Your task to perform on an android device: What is the news today? Image 0: 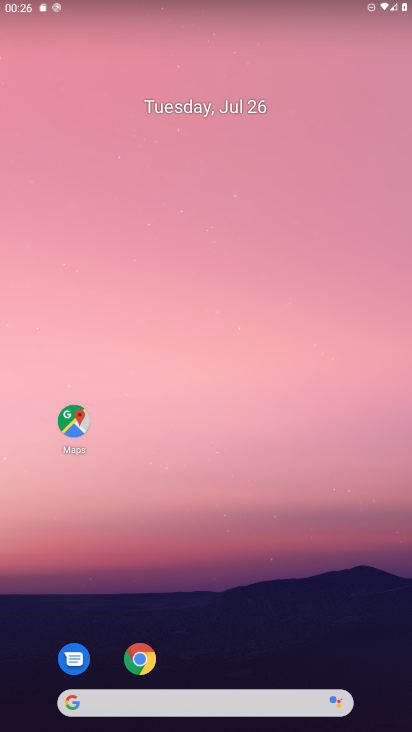
Step 0: drag from (313, 511) to (175, 46)
Your task to perform on an android device: What is the news today? Image 1: 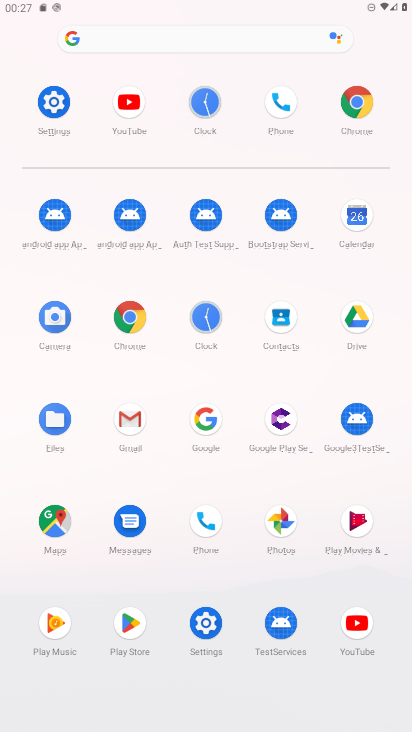
Step 1: click (359, 101)
Your task to perform on an android device: What is the news today? Image 2: 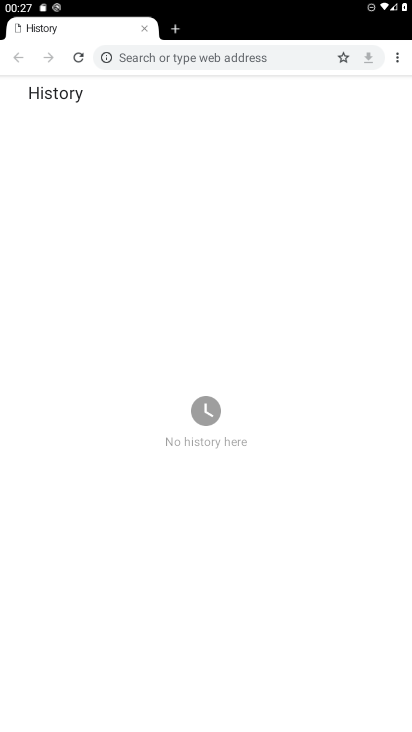
Step 2: click (199, 54)
Your task to perform on an android device: What is the news today? Image 3: 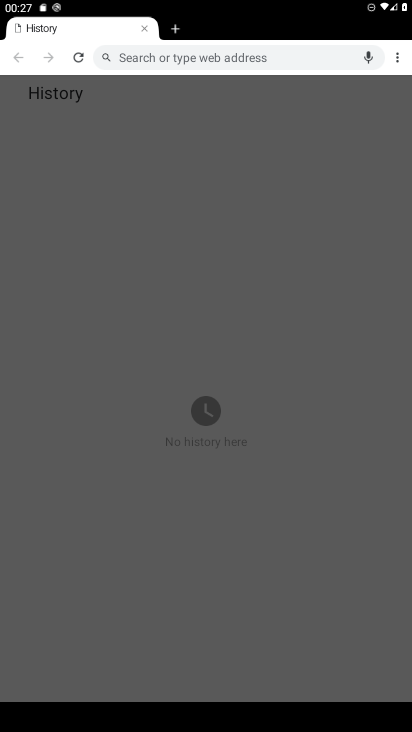
Step 3: type "What is the news today?"
Your task to perform on an android device: What is the news today? Image 4: 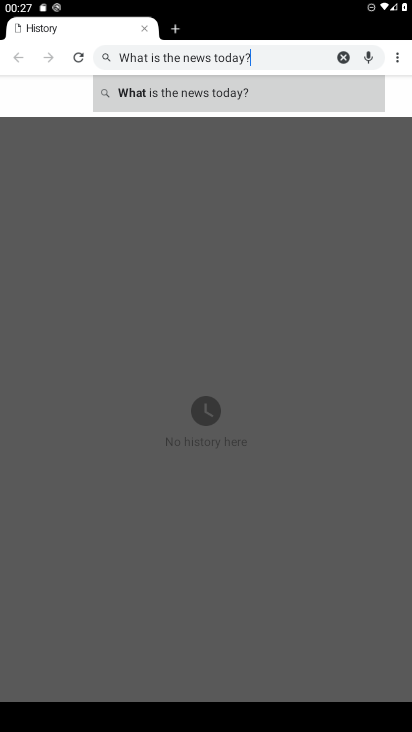
Step 4: type ""
Your task to perform on an android device: What is the news today? Image 5: 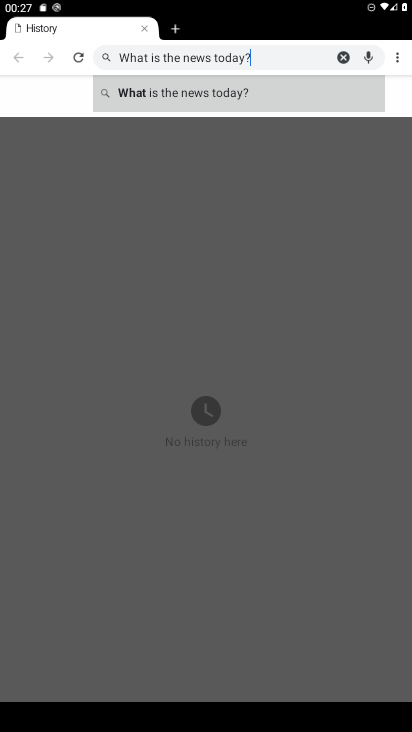
Step 5: click (164, 102)
Your task to perform on an android device: What is the news today? Image 6: 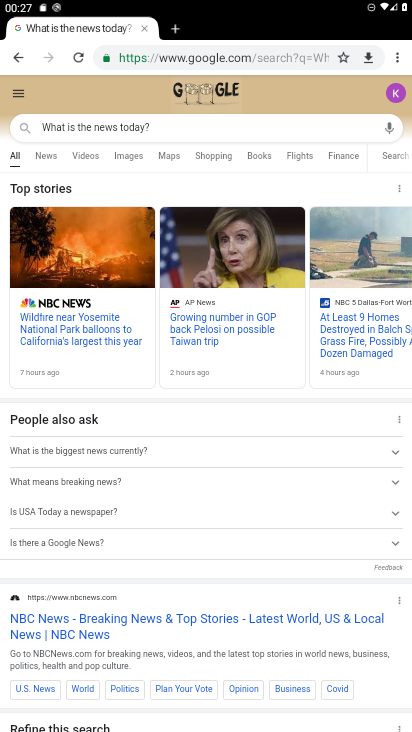
Step 6: task complete